Your task to perform on an android device: Open maps Image 0: 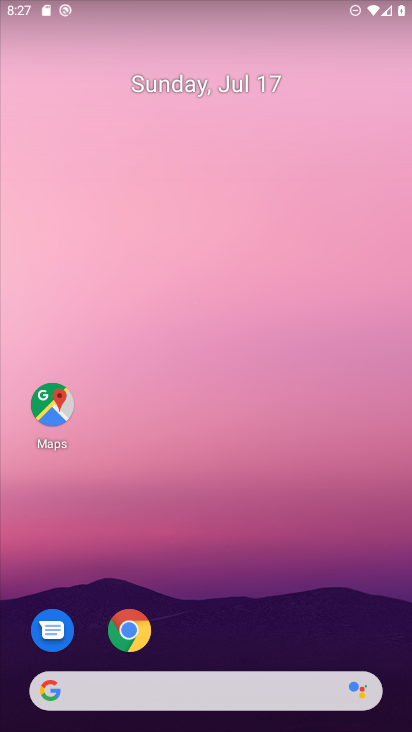
Step 0: drag from (351, 618) to (236, 34)
Your task to perform on an android device: Open maps Image 1: 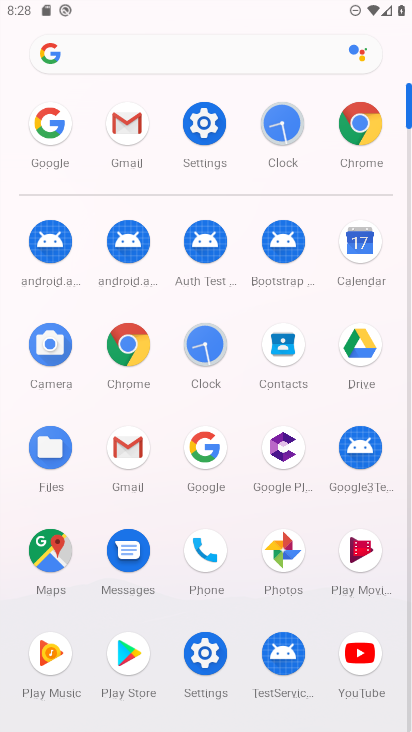
Step 1: click (52, 549)
Your task to perform on an android device: Open maps Image 2: 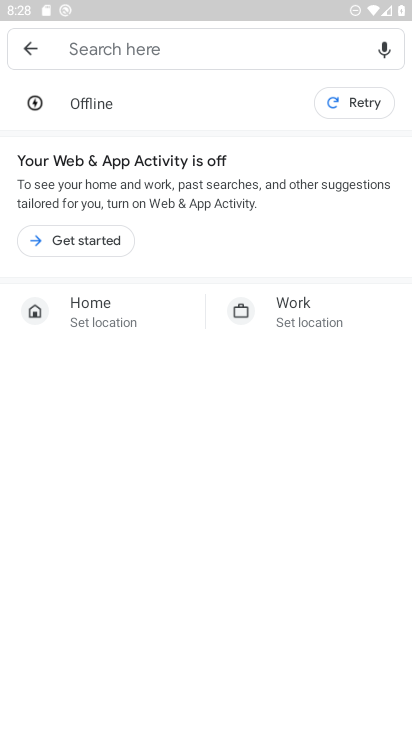
Step 2: click (80, 248)
Your task to perform on an android device: Open maps Image 3: 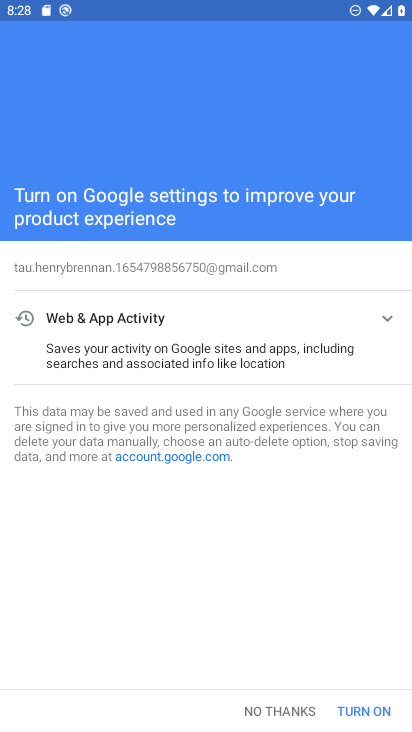
Step 3: click (372, 712)
Your task to perform on an android device: Open maps Image 4: 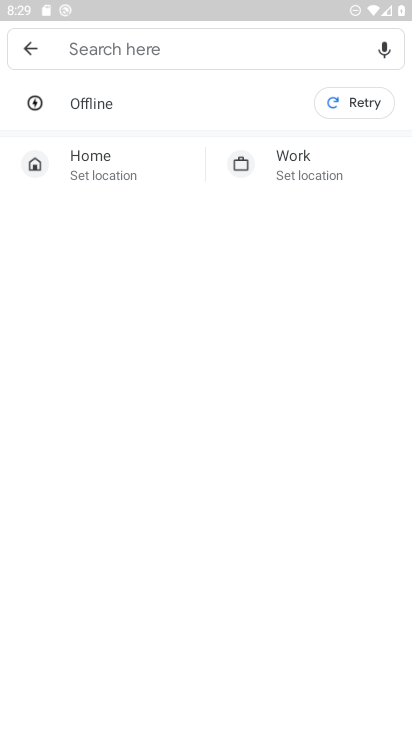
Step 4: task complete